Your task to perform on an android device: open the mobile data screen to see how much data has been used Image 0: 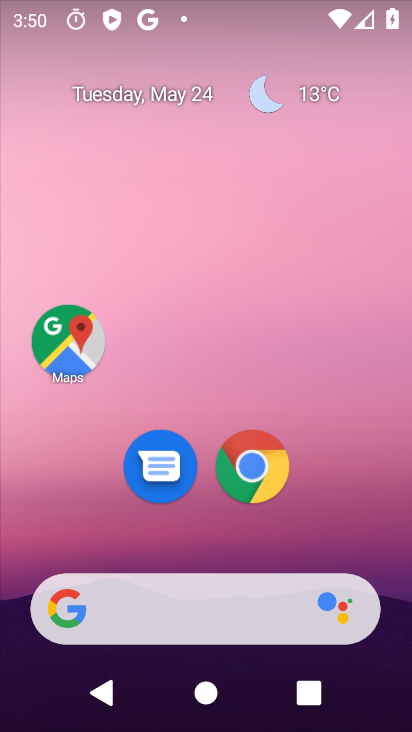
Step 0: drag from (326, 501) to (271, 137)
Your task to perform on an android device: open the mobile data screen to see how much data has been used Image 1: 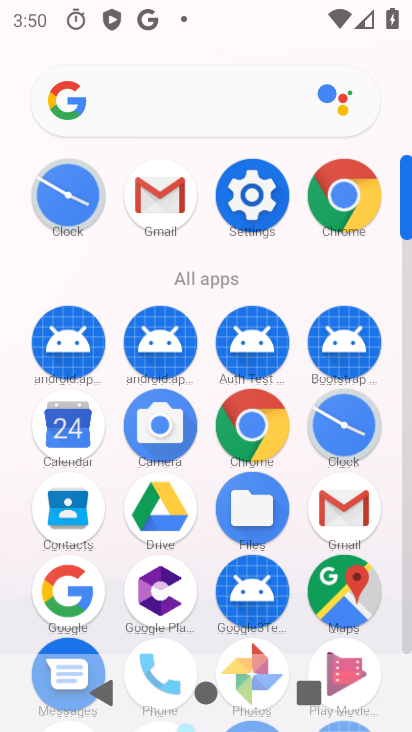
Step 1: click (253, 216)
Your task to perform on an android device: open the mobile data screen to see how much data has been used Image 2: 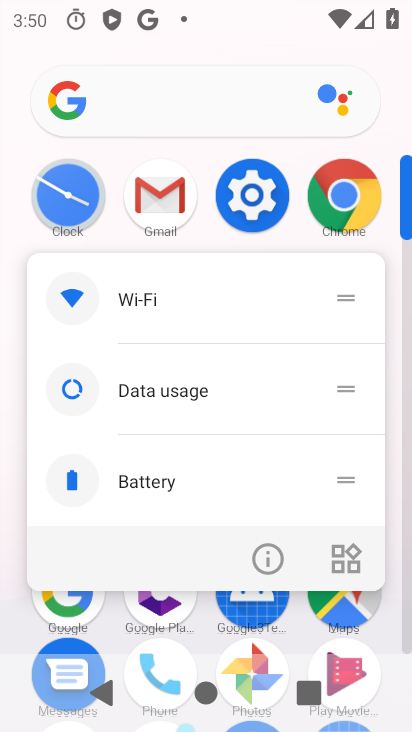
Step 2: click (256, 200)
Your task to perform on an android device: open the mobile data screen to see how much data has been used Image 3: 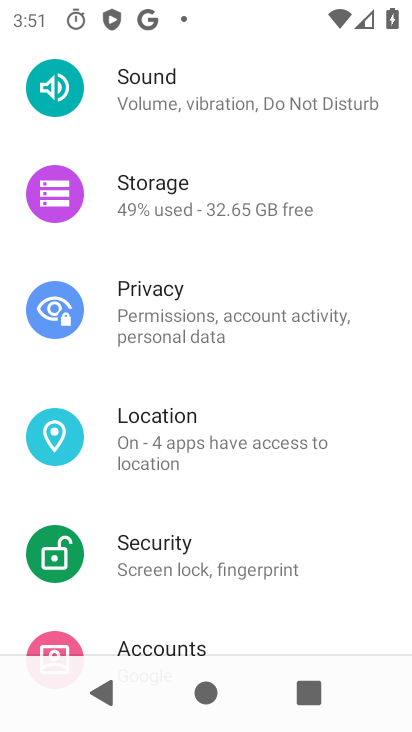
Step 3: drag from (261, 228) to (286, 583)
Your task to perform on an android device: open the mobile data screen to see how much data has been used Image 4: 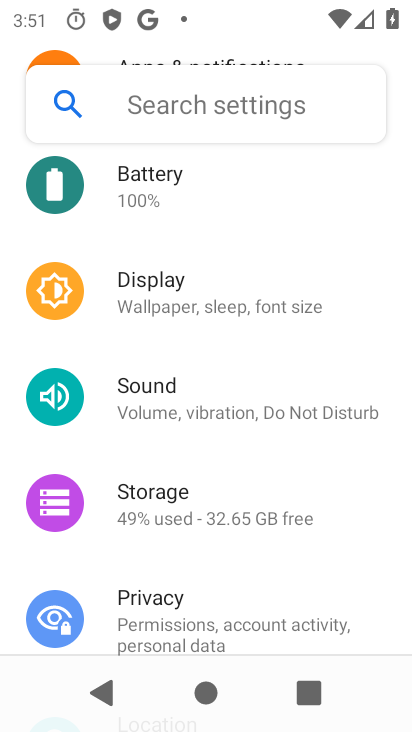
Step 4: drag from (228, 222) to (264, 613)
Your task to perform on an android device: open the mobile data screen to see how much data has been used Image 5: 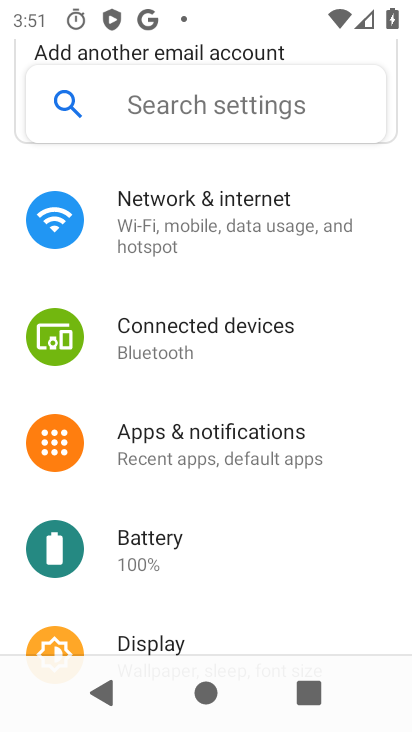
Step 5: drag from (203, 226) to (171, 566)
Your task to perform on an android device: open the mobile data screen to see how much data has been used Image 6: 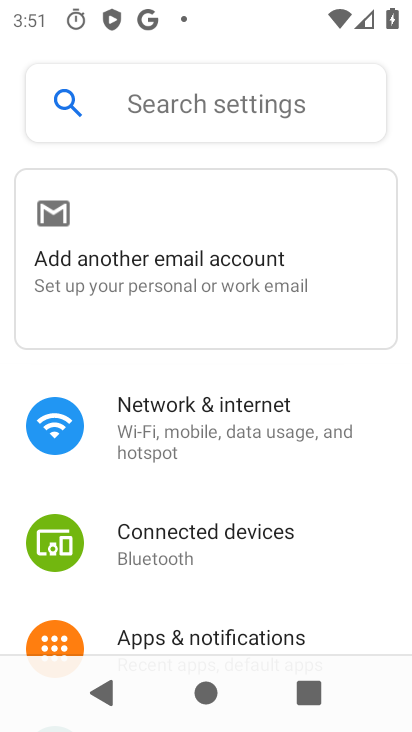
Step 6: click (183, 412)
Your task to perform on an android device: open the mobile data screen to see how much data has been used Image 7: 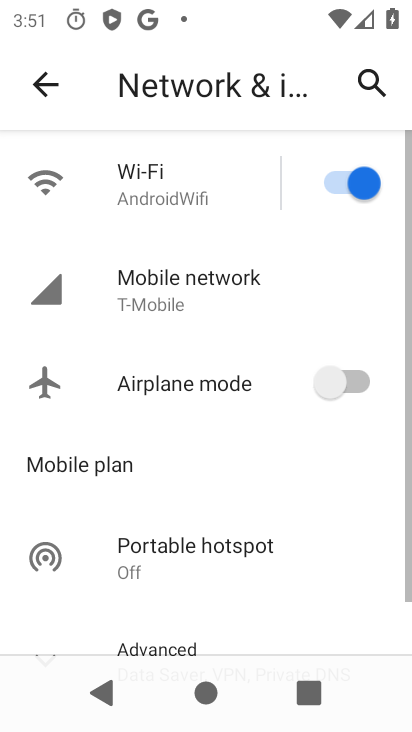
Step 7: click (235, 284)
Your task to perform on an android device: open the mobile data screen to see how much data has been used Image 8: 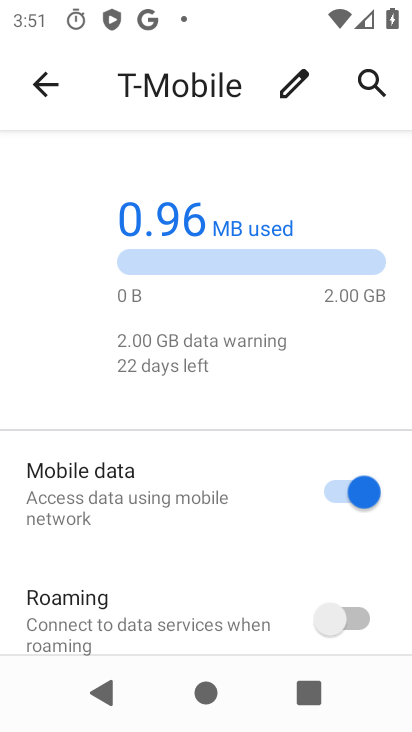
Step 8: task complete